Your task to perform on an android device: turn on wifi Image 0: 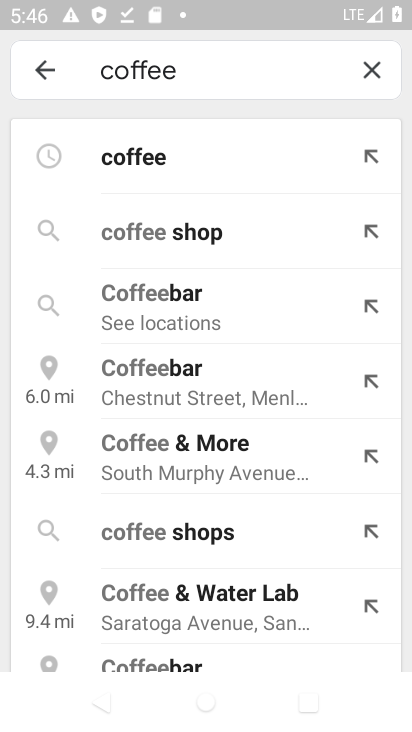
Step 0: press home button
Your task to perform on an android device: turn on wifi Image 1: 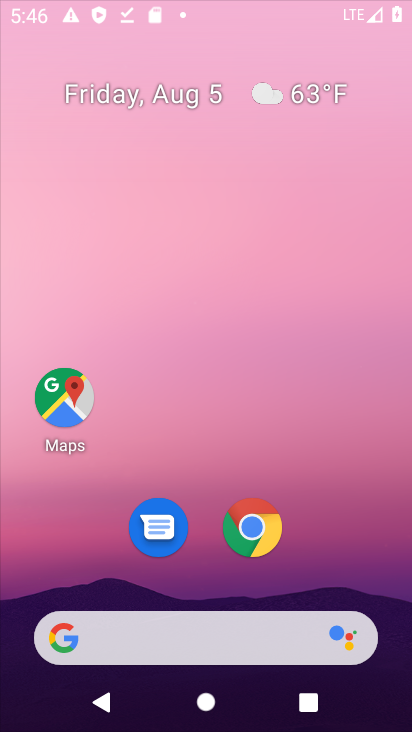
Step 1: drag from (213, 648) to (322, 61)
Your task to perform on an android device: turn on wifi Image 2: 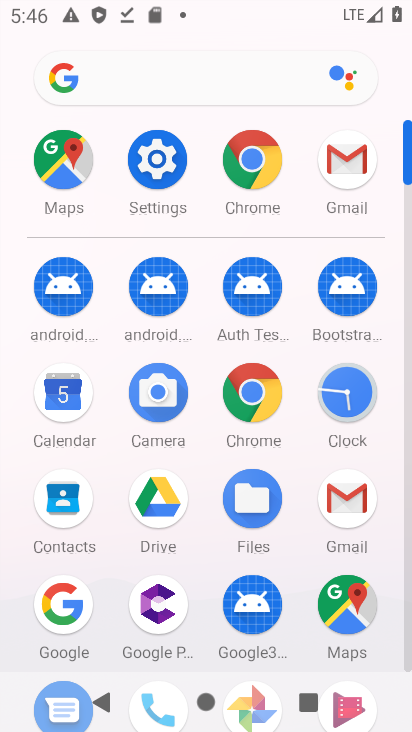
Step 2: click (146, 144)
Your task to perform on an android device: turn on wifi Image 3: 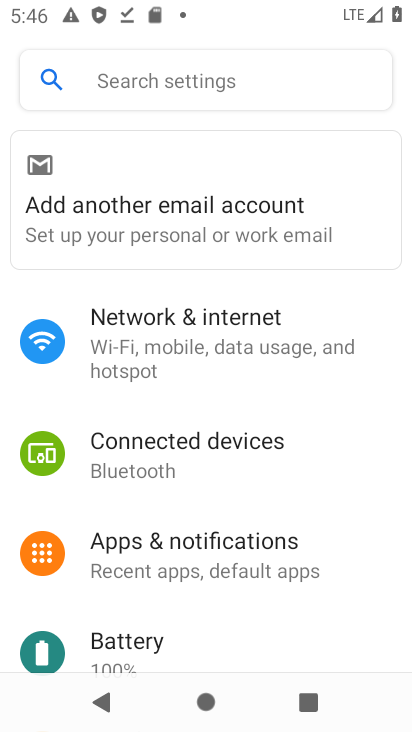
Step 3: click (107, 343)
Your task to perform on an android device: turn on wifi Image 4: 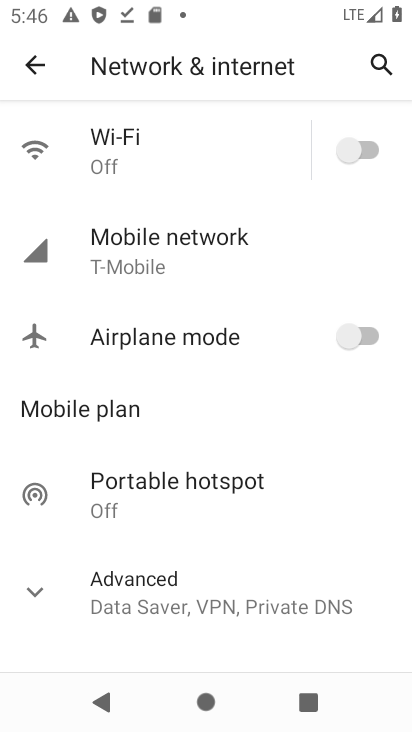
Step 4: click (177, 153)
Your task to perform on an android device: turn on wifi Image 5: 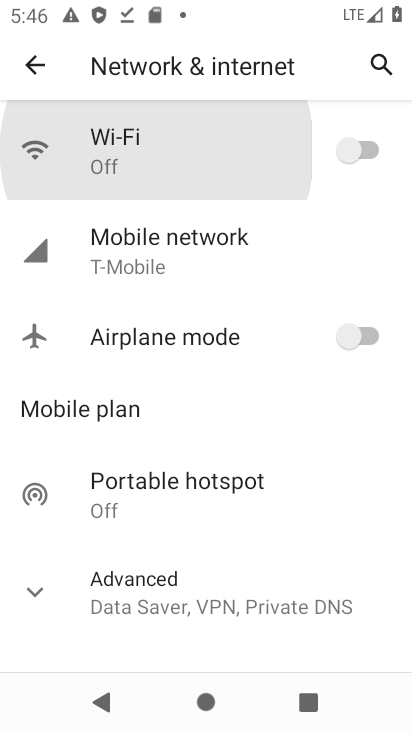
Step 5: click (171, 153)
Your task to perform on an android device: turn on wifi Image 6: 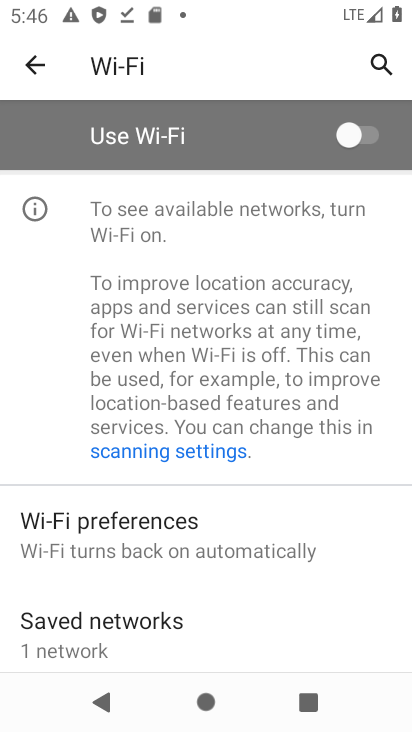
Step 6: drag from (213, 383) to (302, 87)
Your task to perform on an android device: turn on wifi Image 7: 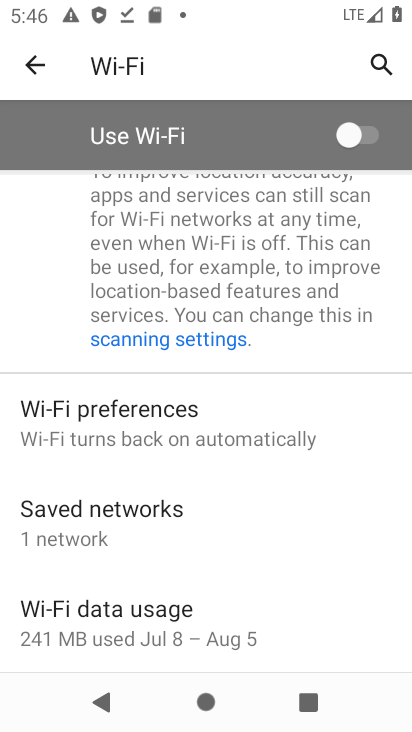
Step 7: click (316, 145)
Your task to perform on an android device: turn on wifi Image 8: 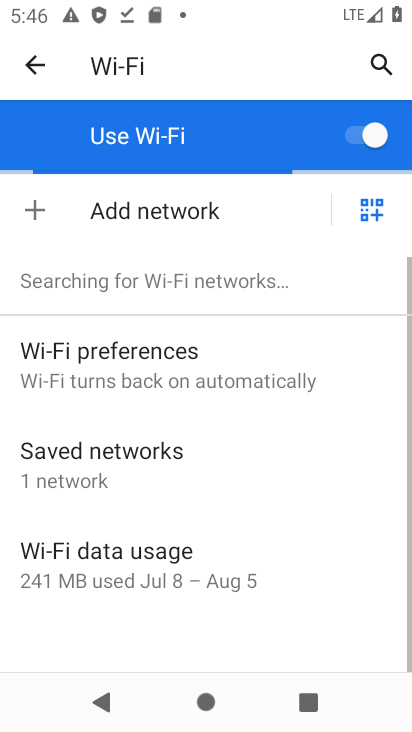
Step 8: task complete